Your task to perform on an android device: Show me the alarms in the clock app Image 0: 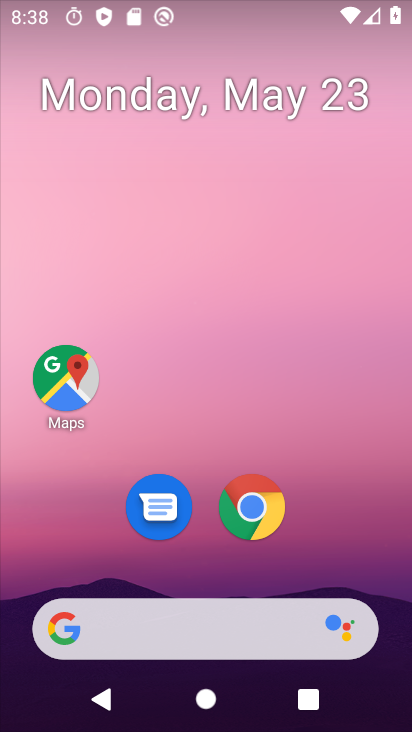
Step 0: drag from (339, 476) to (326, 107)
Your task to perform on an android device: Show me the alarms in the clock app Image 1: 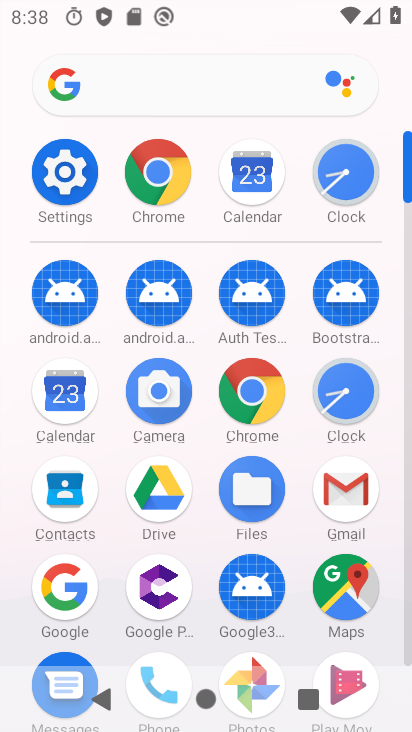
Step 1: click (364, 198)
Your task to perform on an android device: Show me the alarms in the clock app Image 2: 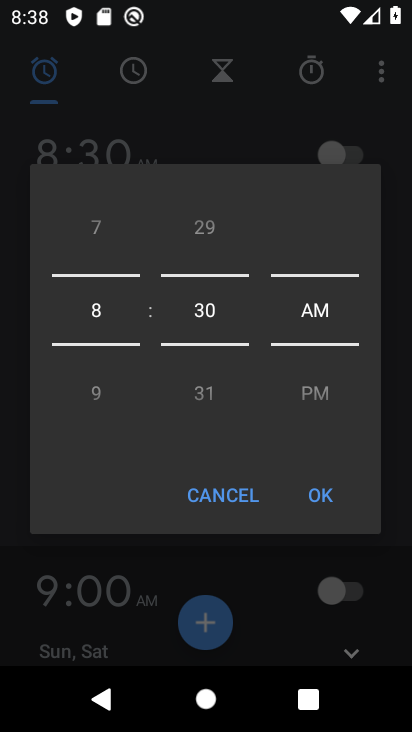
Step 2: task complete